Your task to perform on an android device: check the backup settings in the google photos Image 0: 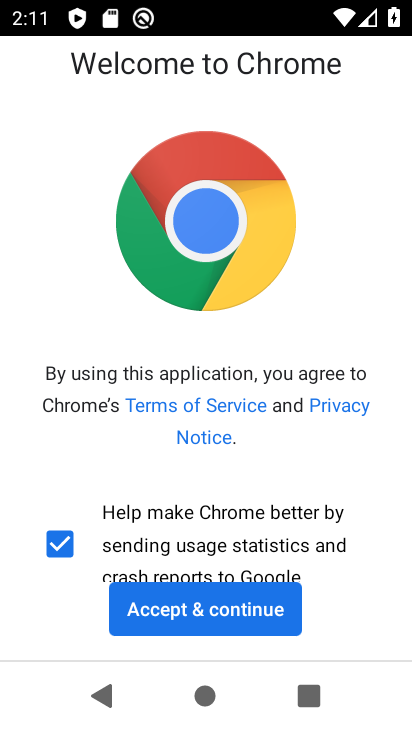
Step 0: click (247, 604)
Your task to perform on an android device: check the backup settings in the google photos Image 1: 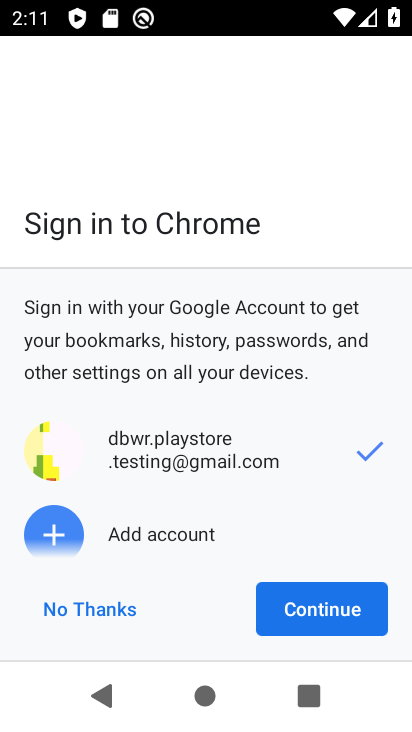
Step 1: click (302, 602)
Your task to perform on an android device: check the backup settings in the google photos Image 2: 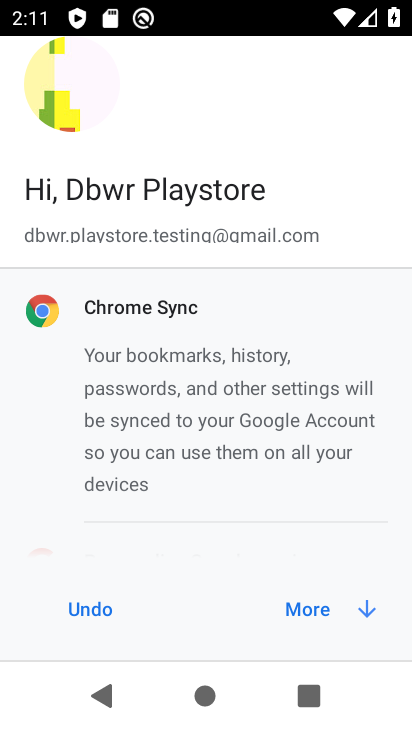
Step 2: click (307, 617)
Your task to perform on an android device: check the backup settings in the google photos Image 3: 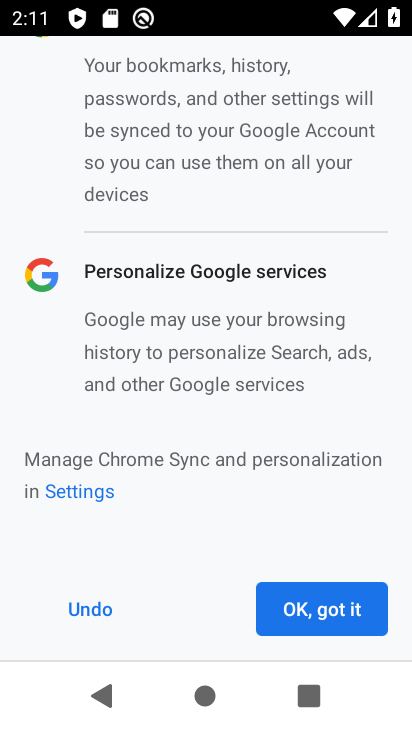
Step 3: click (329, 626)
Your task to perform on an android device: check the backup settings in the google photos Image 4: 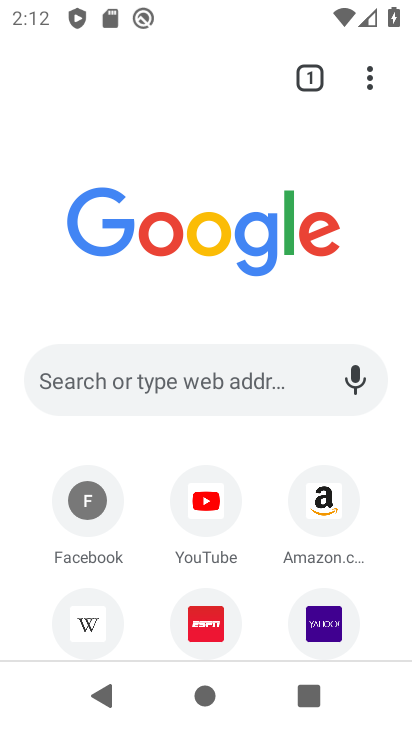
Step 4: press back button
Your task to perform on an android device: check the backup settings in the google photos Image 5: 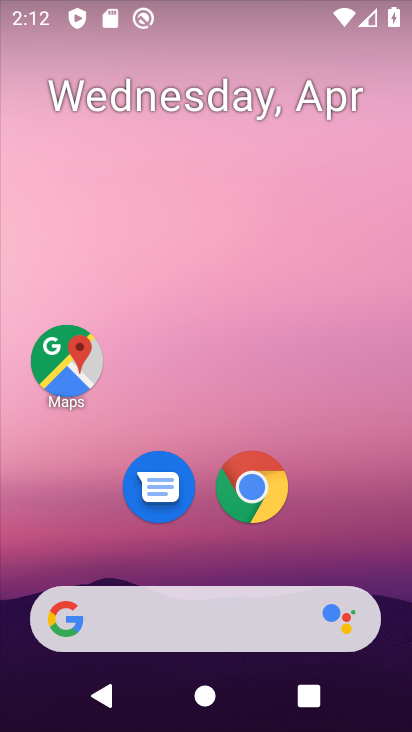
Step 5: drag from (232, 577) to (187, 169)
Your task to perform on an android device: check the backup settings in the google photos Image 6: 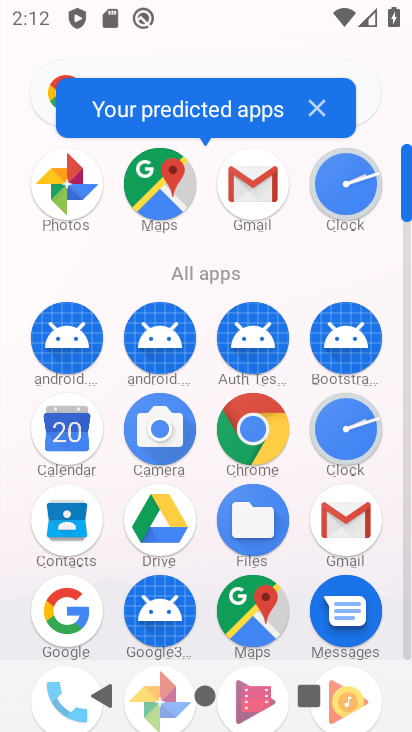
Step 6: click (68, 190)
Your task to perform on an android device: check the backup settings in the google photos Image 7: 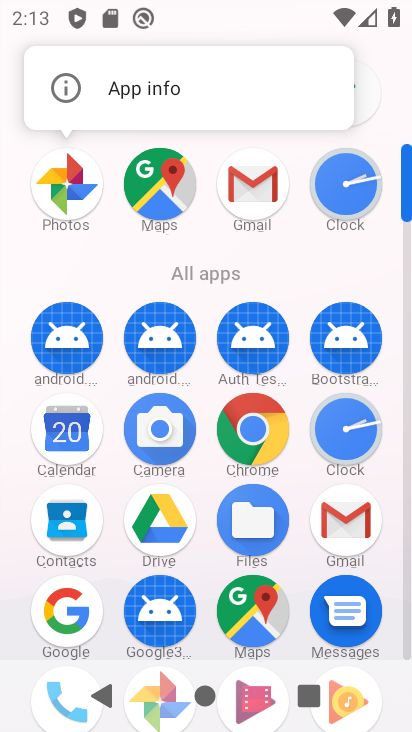
Step 7: click (68, 183)
Your task to perform on an android device: check the backup settings in the google photos Image 8: 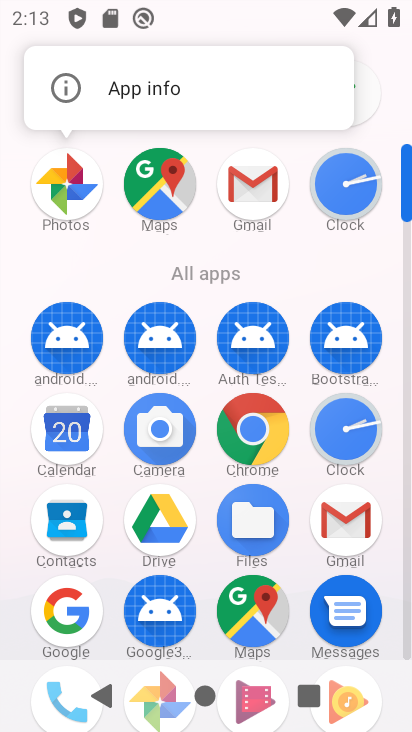
Step 8: click (61, 197)
Your task to perform on an android device: check the backup settings in the google photos Image 9: 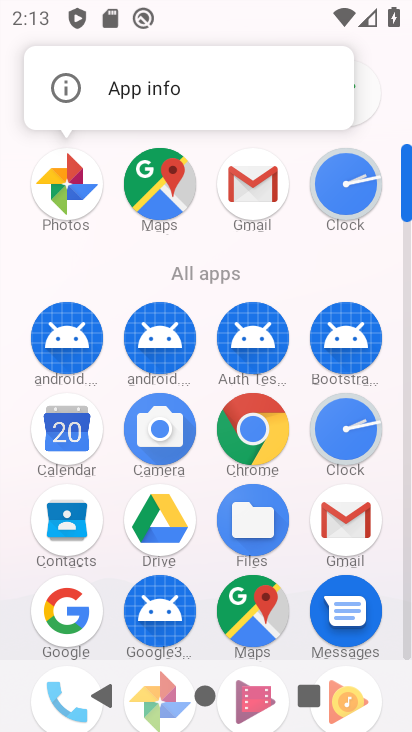
Step 9: click (69, 184)
Your task to perform on an android device: check the backup settings in the google photos Image 10: 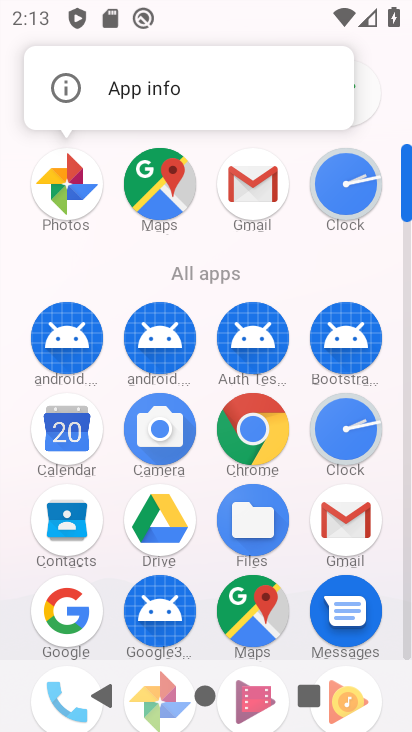
Step 10: click (69, 184)
Your task to perform on an android device: check the backup settings in the google photos Image 11: 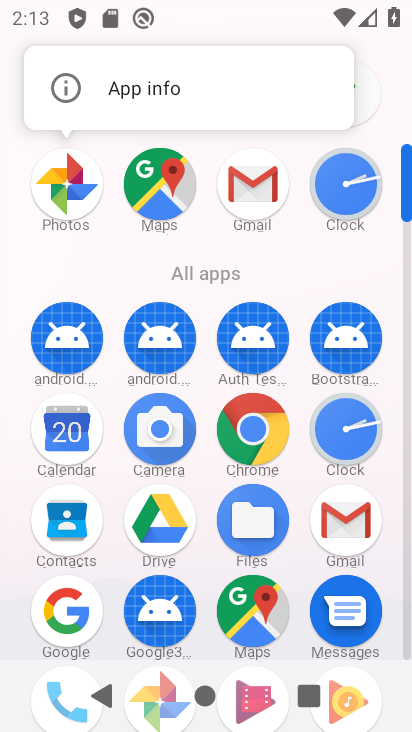
Step 11: click (63, 188)
Your task to perform on an android device: check the backup settings in the google photos Image 12: 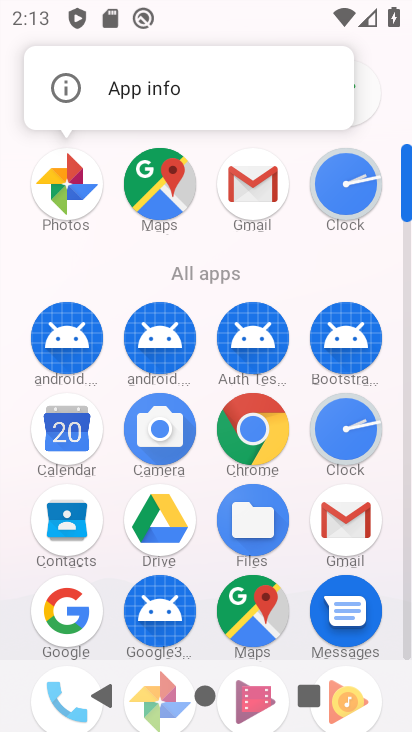
Step 12: click (66, 189)
Your task to perform on an android device: check the backup settings in the google photos Image 13: 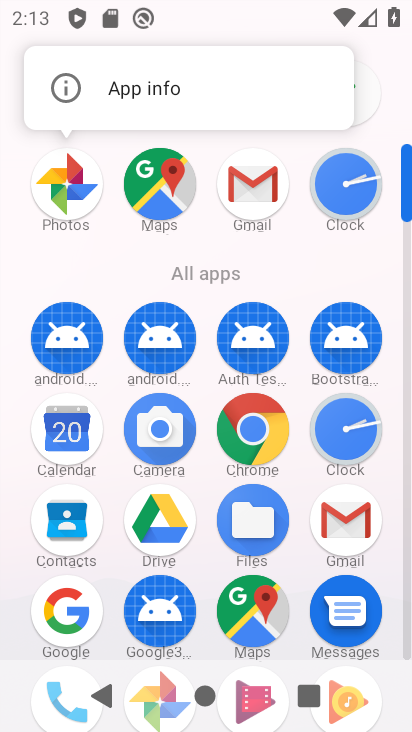
Step 13: click (71, 182)
Your task to perform on an android device: check the backup settings in the google photos Image 14: 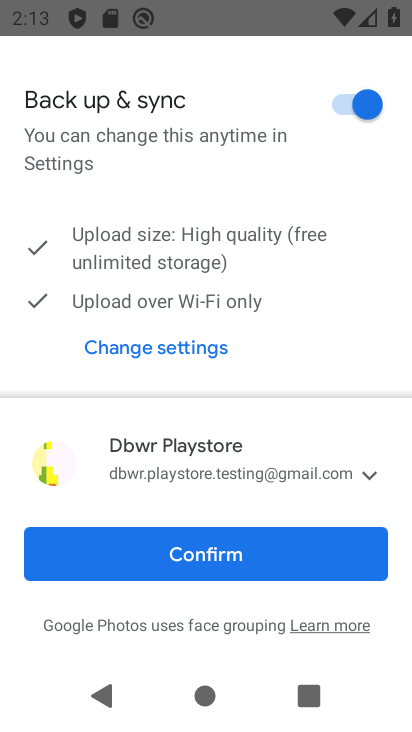
Step 14: click (190, 562)
Your task to perform on an android device: check the backup settings in the google photos Image 15: 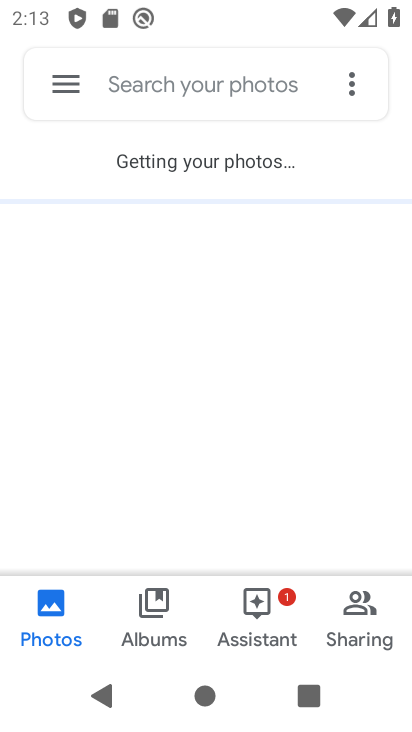
Step 15: click (58, 90)
Your task to perform on an android device: check the backup settings in the google photos Image 16: 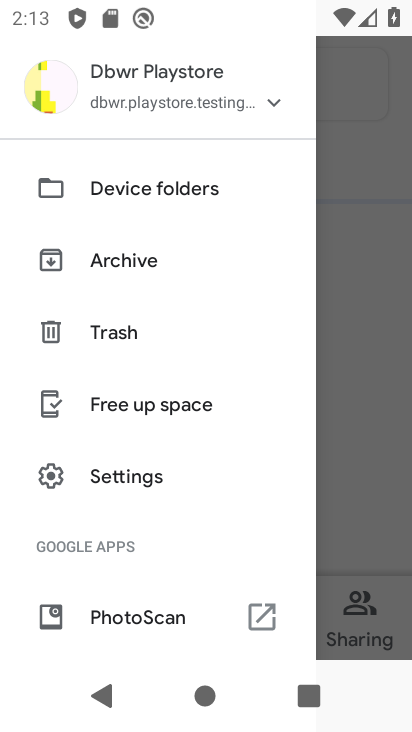
Step 16: click (126, 480)
Your task to perform on an android device: check the backup settings in the google photos Image 17: 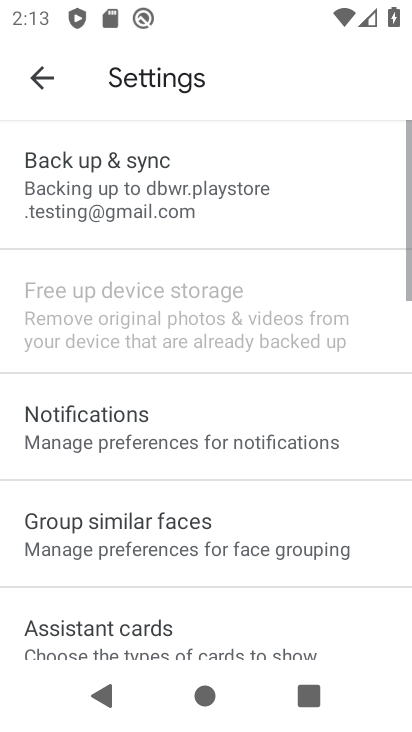
Step 17: click (162, 182)
Your task to perform on an android device: check the backup settings in the google photos Image 18: 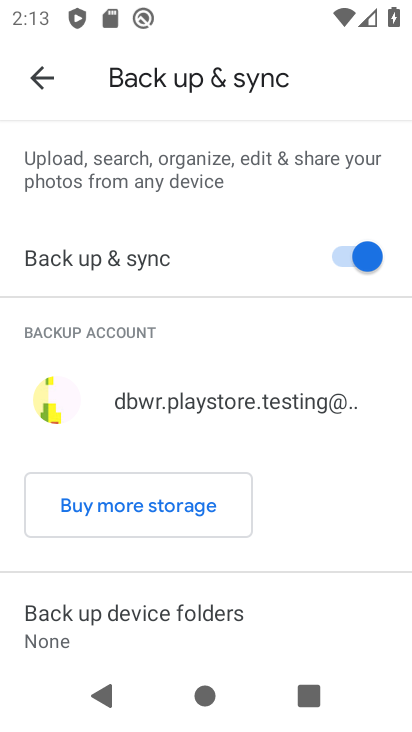
Step 18: task complete